Your task to perform on an android device: read, delete, or share a saved page in the chrome app Image 0: 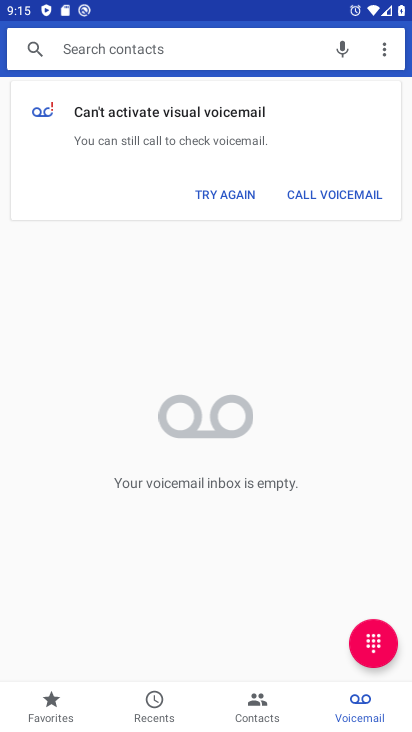
Step 0: press home button
Your task to perform on an android device: read, delete, or share a saved page in the chrome app Image 1: 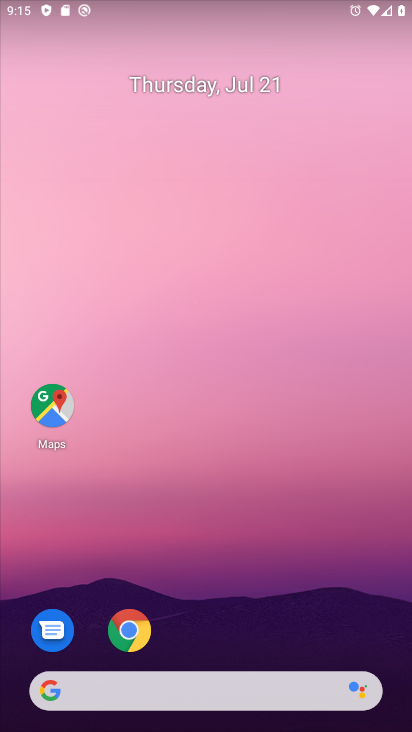
Step 1: drag from (191, 725) to (174, 271)
Your task to perform on an android device: read, delete, or share a saved page in the chrome app Image 2: 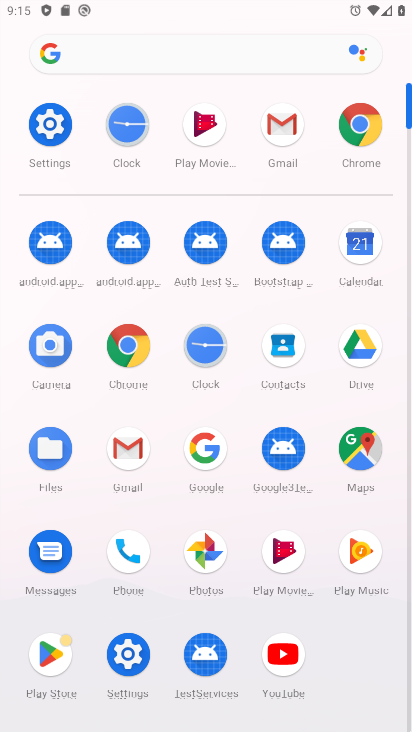
Step 2: click (128, 351)
Your task to perform on an android device: read, delete, or share a saved page in the chrome app Image 3: 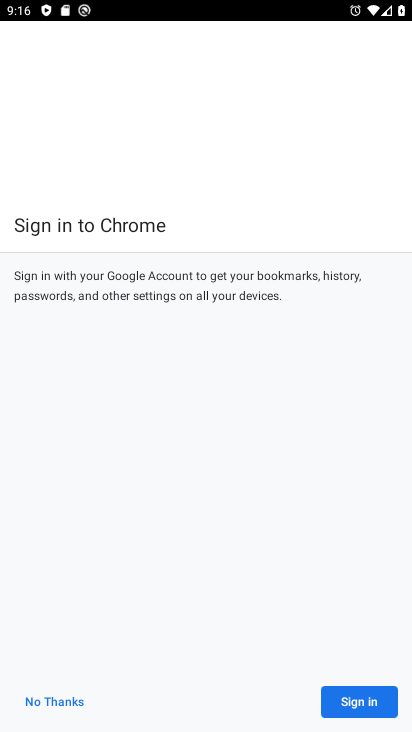
Step 3: task complete